Your task to perform on an android device: change notification settings in the gmail app Image 0: 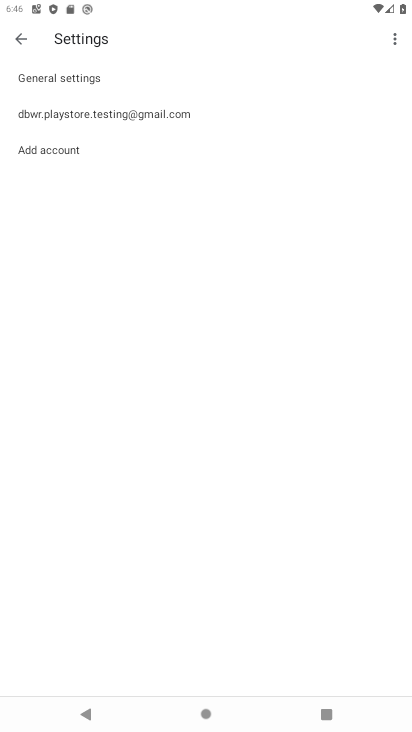
Step 0: click (132, 63)
Your task to perform on an android device: change notification settings in the gmail app Image 1: 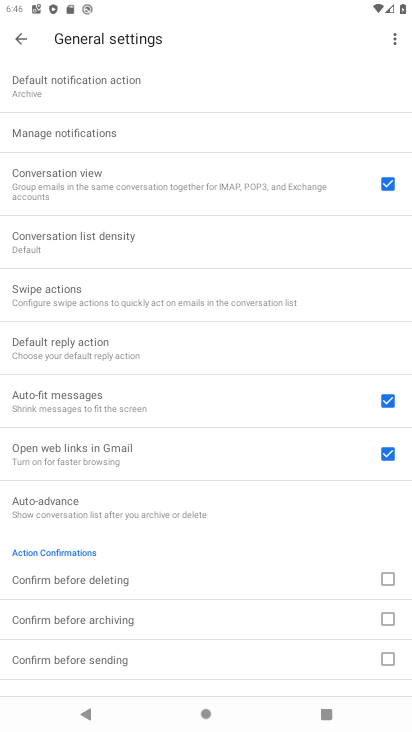
Step 1: click (170, 123)
Your task to perform on an android device: change notification settings in the gmail app Image 2: 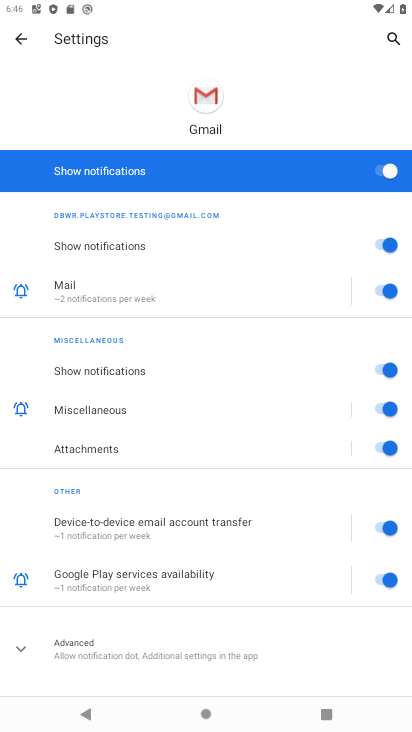
Step 2: click (377, 177)
Your task to perform on an android device: change notification settings in the gmail app Image 3: 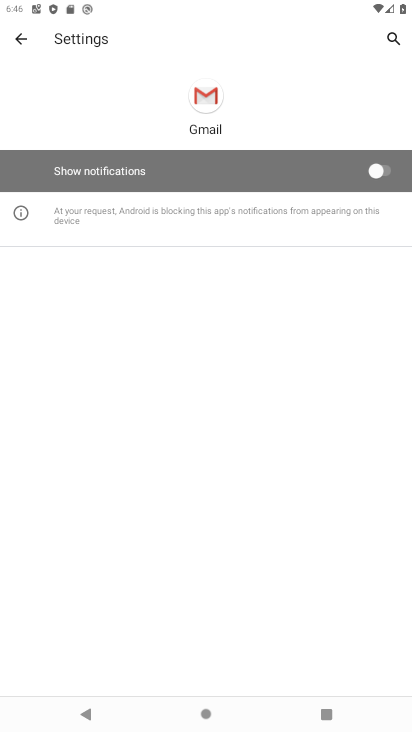
Step 3: task complete